Your task to perform on an android device: Open notification settings Image 0: 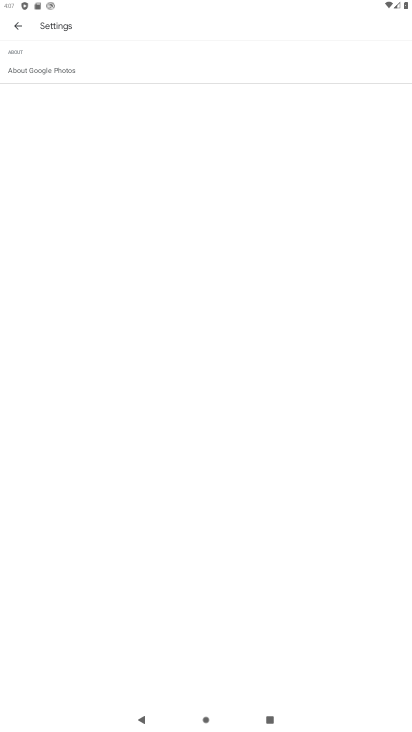
Step 0: press home button
Your task to perform on an android device: Open notification settings Image 1: 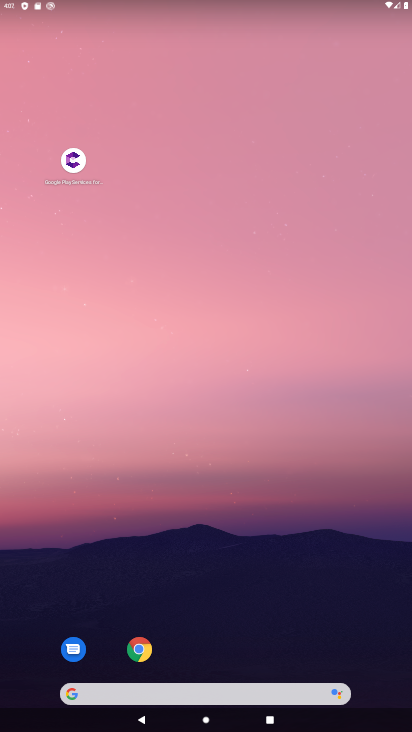
Step 1: drag from (217, 538) to (213, 300)
Your task to perform on an android device: Open notification settings Image 2: 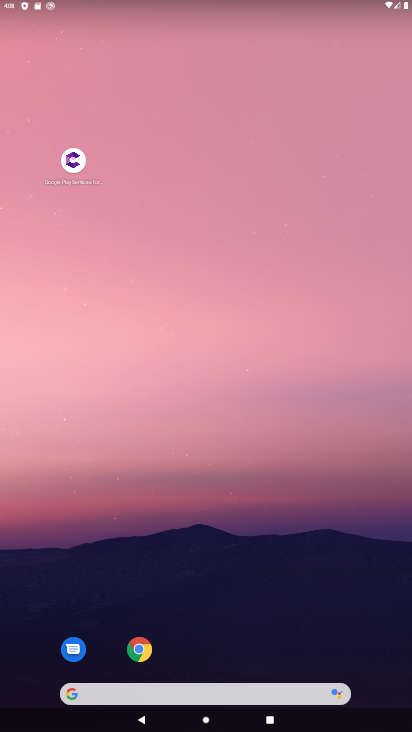
Step 2: drag from (184, 614) to (246, 229)
Your task to perform on an android device: Open notification settings Image 3: 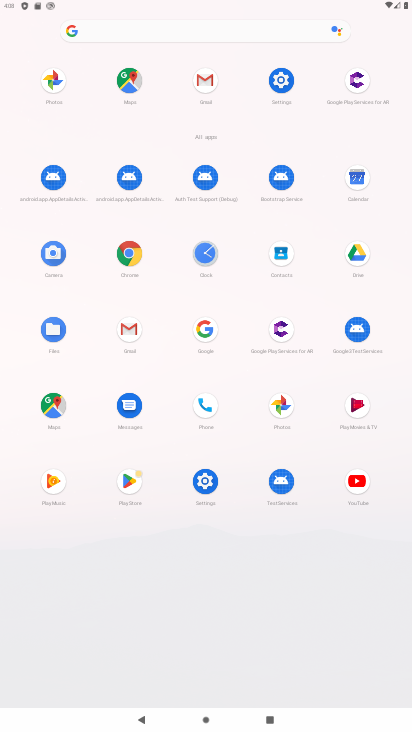
Step 3: click (205, 477)
Your task to perform on an android device: Open notification settings Image 4: 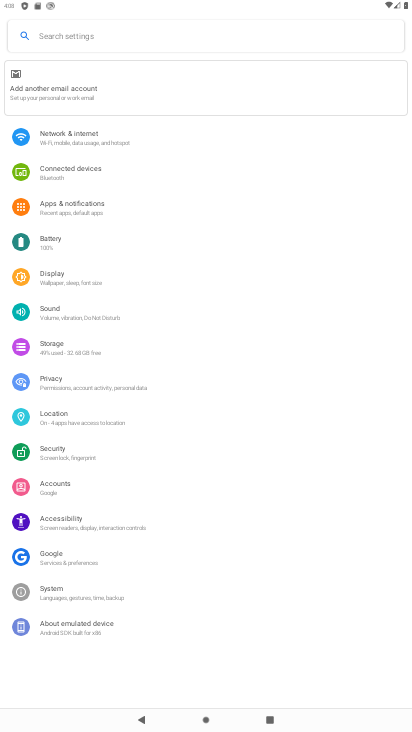
Step 4: click (57, 214)
Your task to perform on an android device: Open notification settings Image 5: 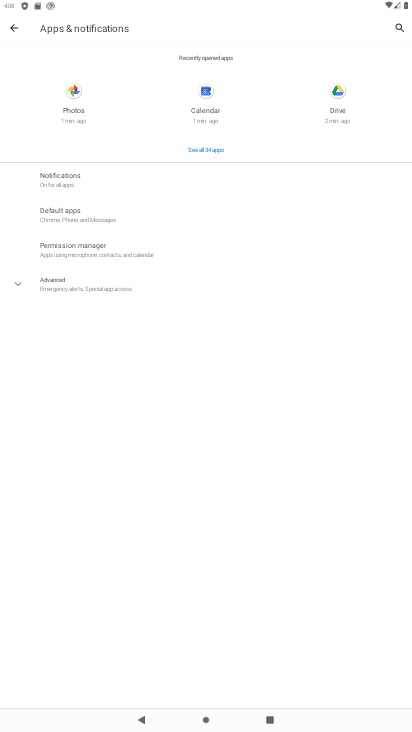
Step 5: click (64, 184)
Your task to perform on an android device: Open notification settings Image 6: 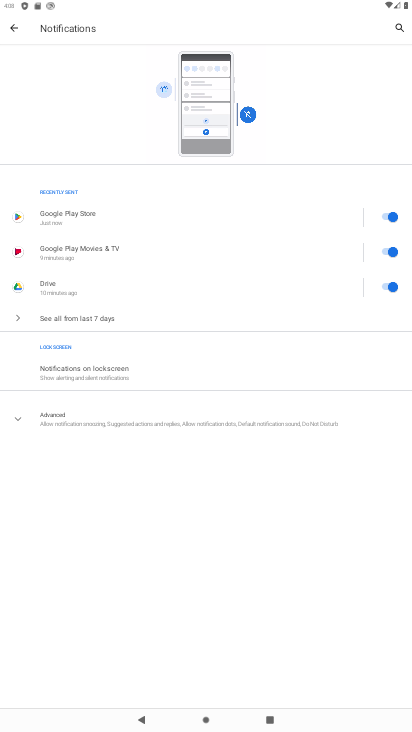
Step 6: task complete